Your task to perform on an android device: Open Youtube and go to "Your channel" Image 0: 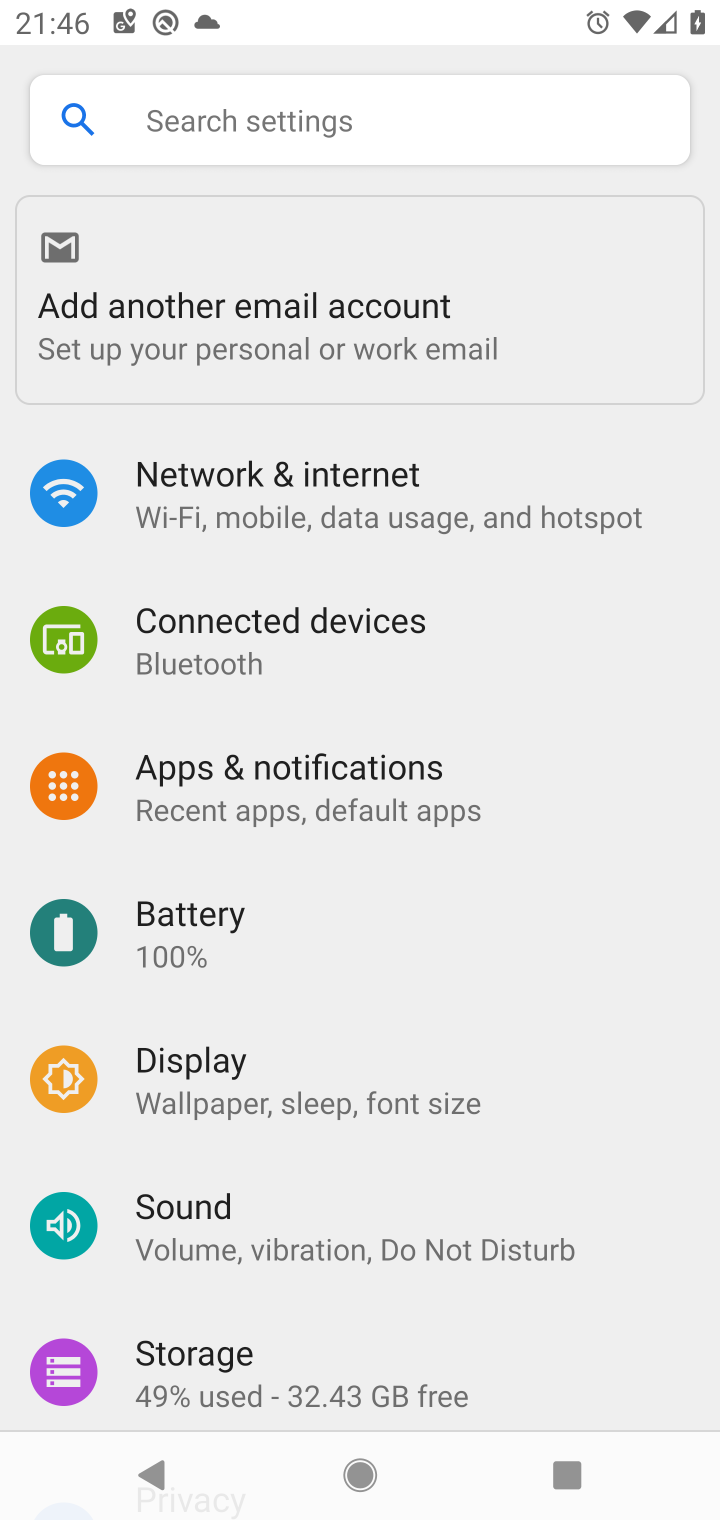
Step 0: press home button
Your task to perform on an android device: Open Youtube and go to "Your channel" Image 1: 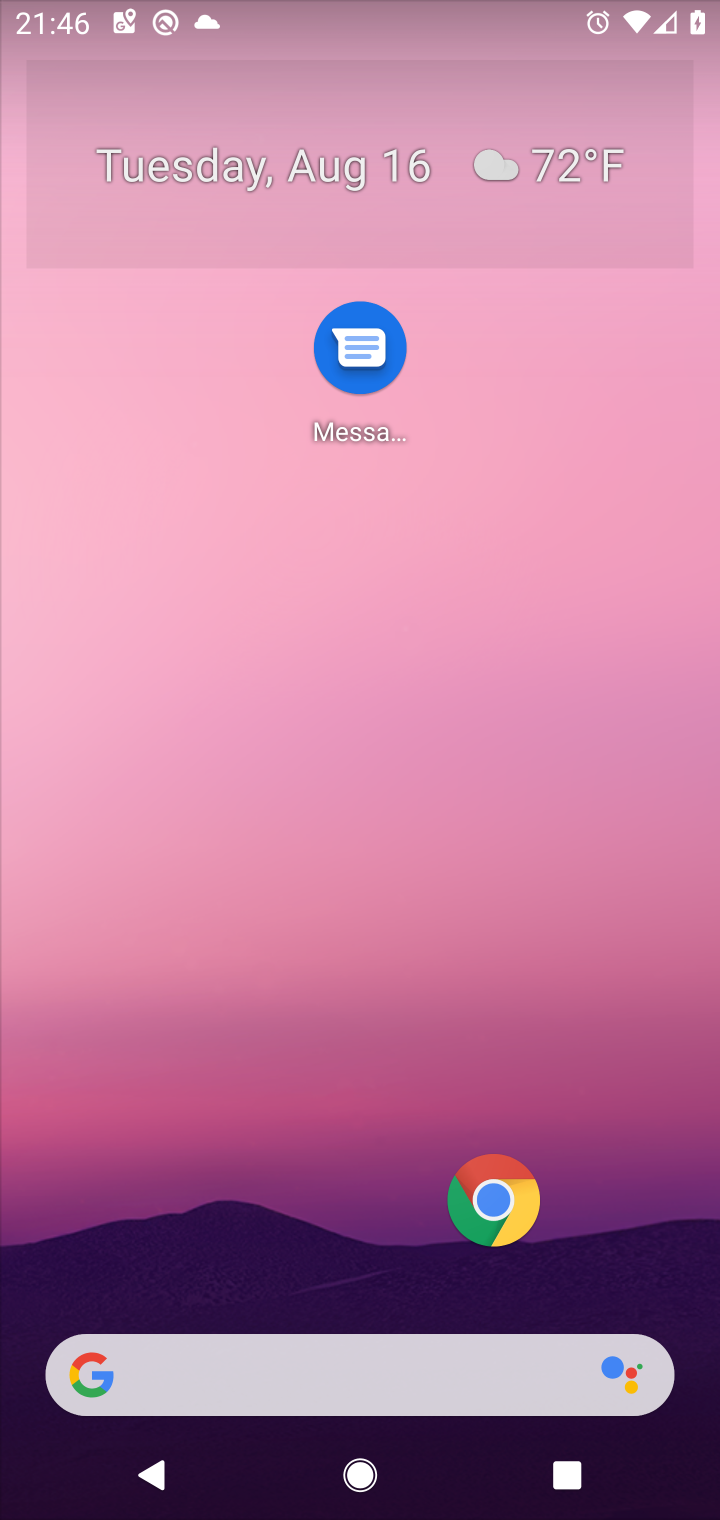
Step 1: drag from (45, 1456) to (573, 562)
Your task to perform on an android device: Open Youtube and go to "Your channel" Image 2: 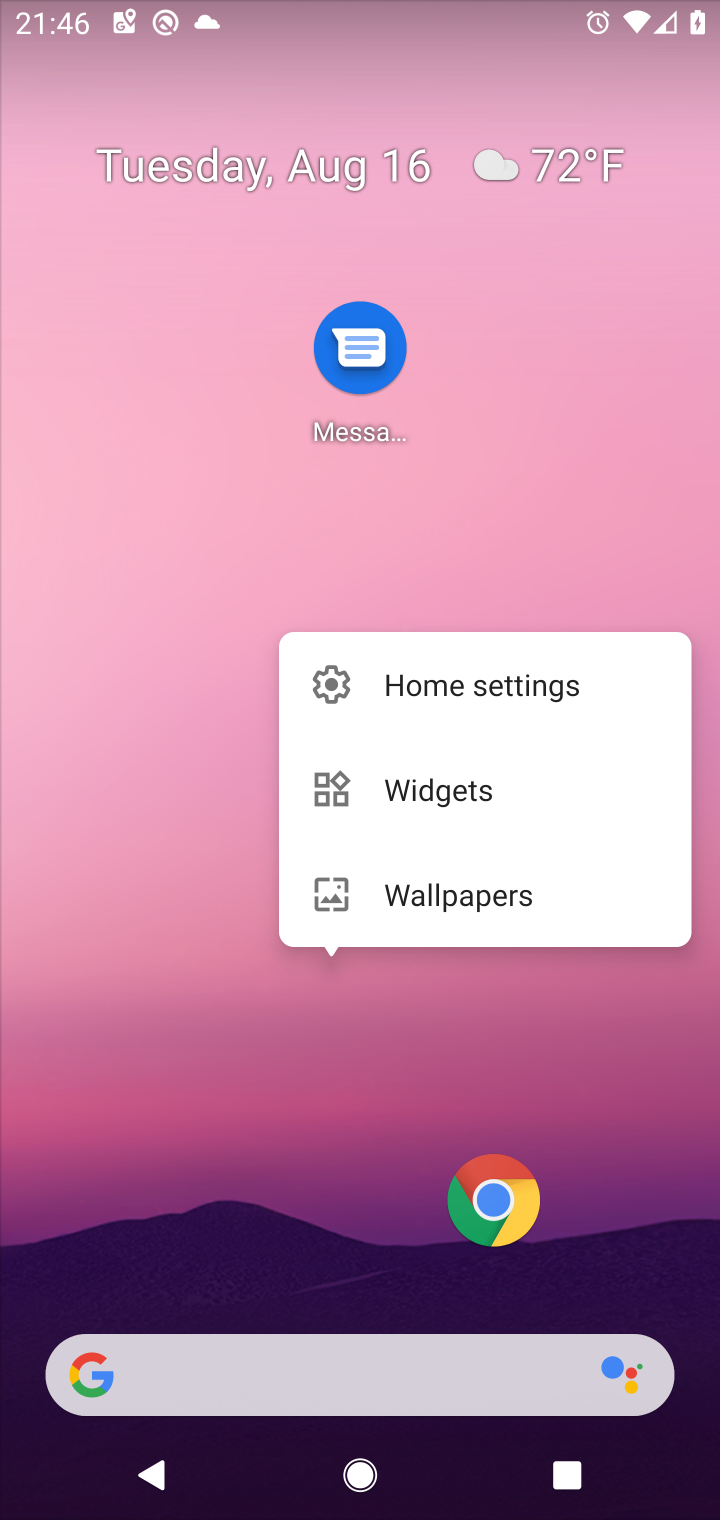
Step 2: drag from (30, 1464) to (187, 453)
Your task to perform on an android device: Open Youtube and go to "Your channel" Image 3: 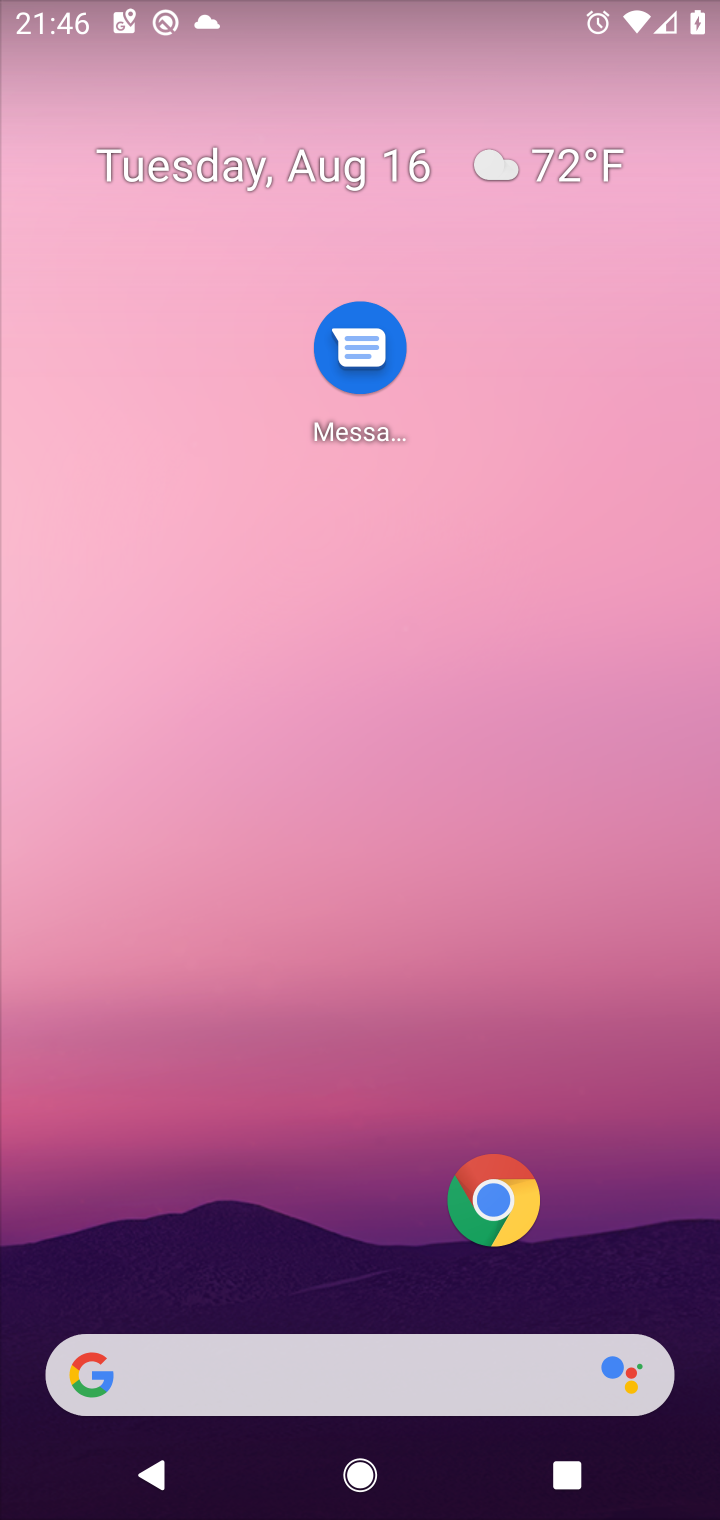
Step 3: click (72, 1451)
Your task to perform on an android device: Open Youtube and go to "Your channel" Image 4: 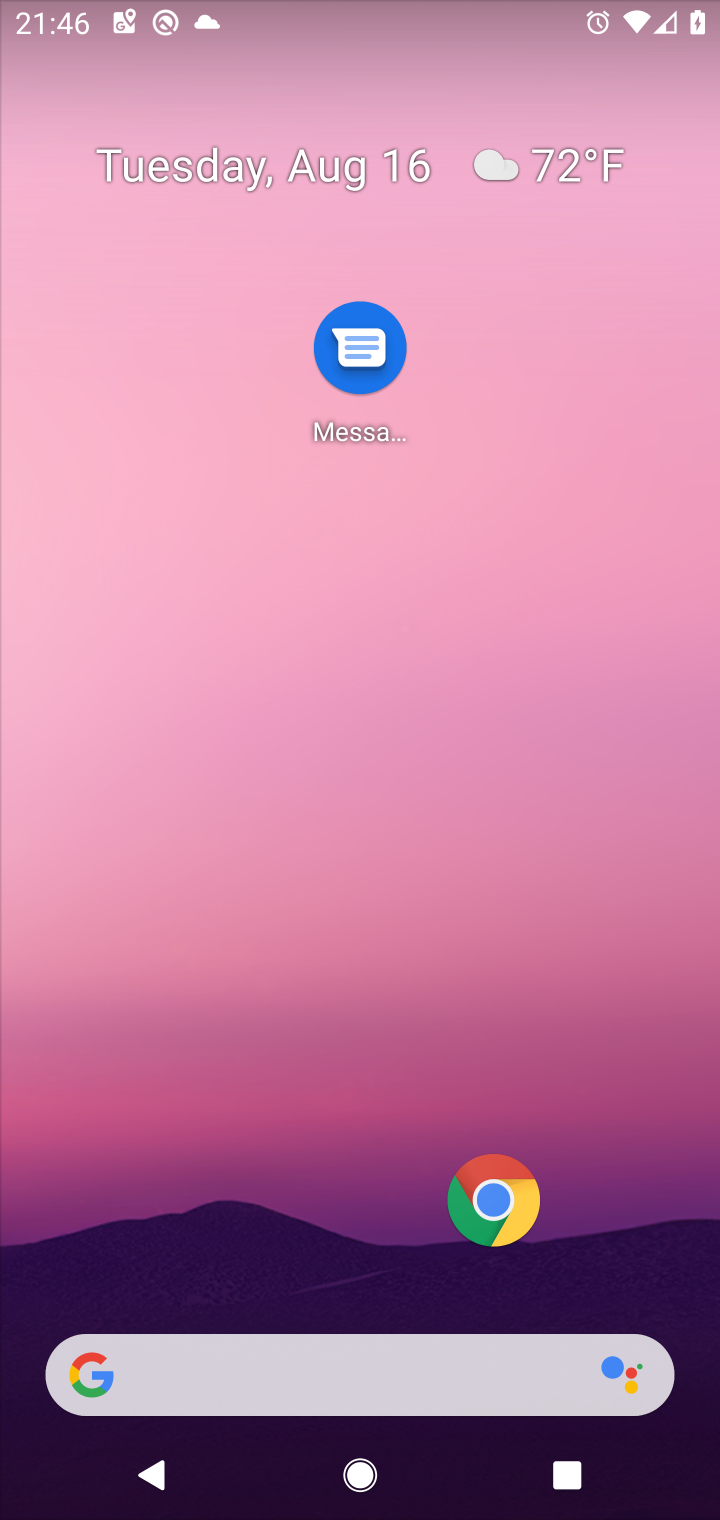
Step 4: drag from (73, 1458) to (147, 791)
Your task to perform on an android device: Open Youtube and go to "Your channel" Image 5: 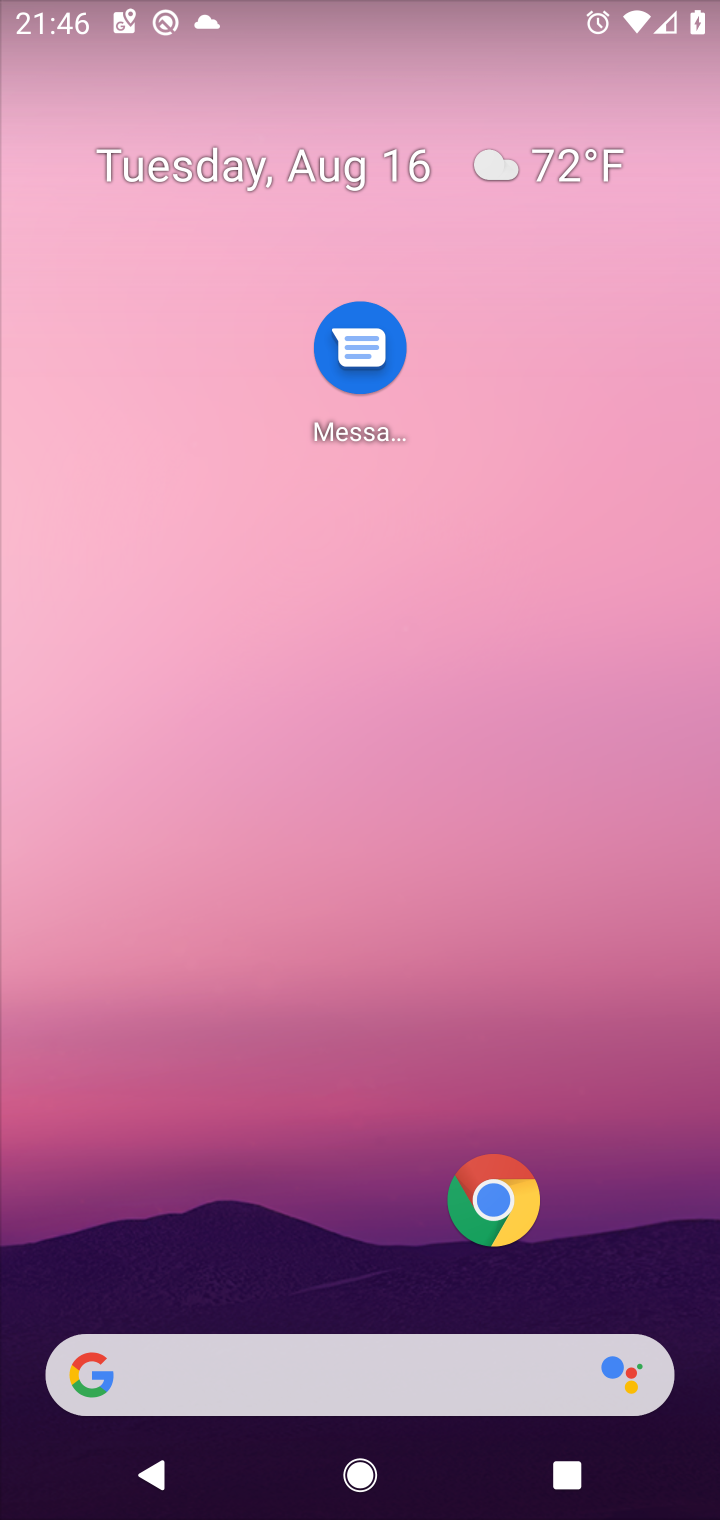
Step 5: click (84, 1474)
Your task to perform on an android device: Open Youtube and go to "Your channel" Image 6: 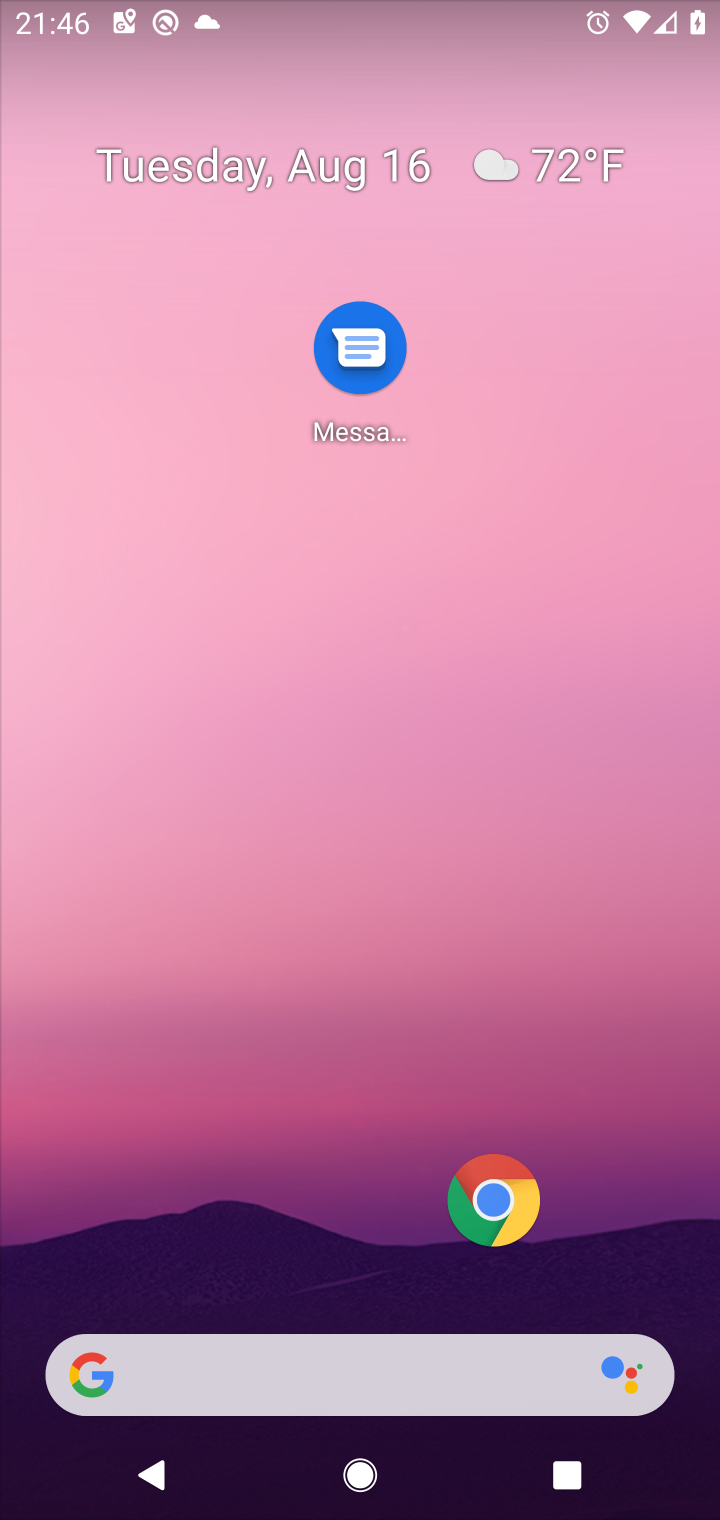
Step 6: task complete